Your task to perform on an android device: add a contact in the contacts app Image 0: 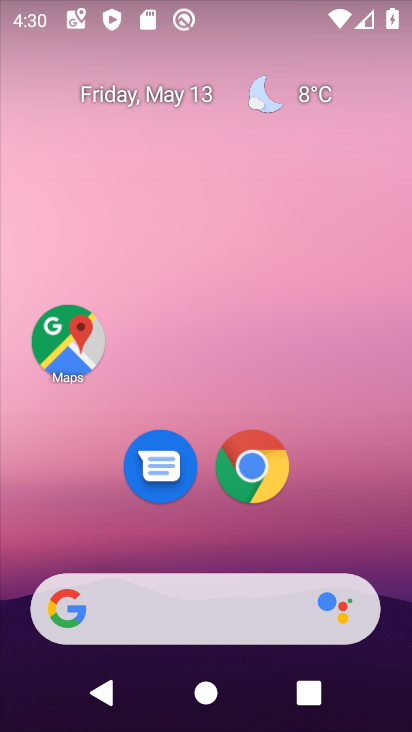
Step 0: drag from (395, 611) to (314, 143)
Your task to perform on an android device: add a contact in the contacts app Image 1: 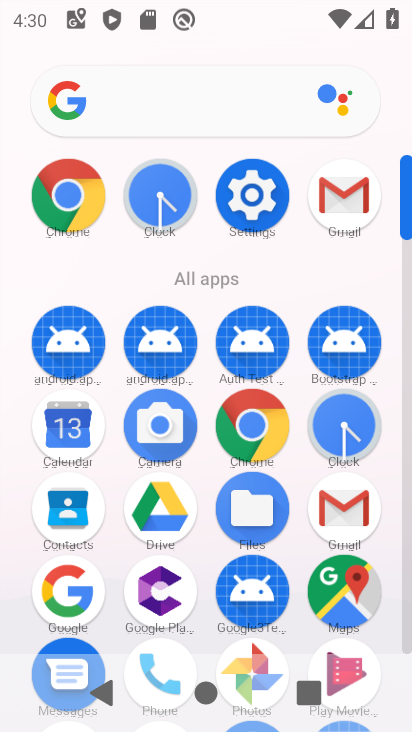
Step 1: click (406, 638)
Your task to perform on an android device: add a contact in the contacts app Image 2: 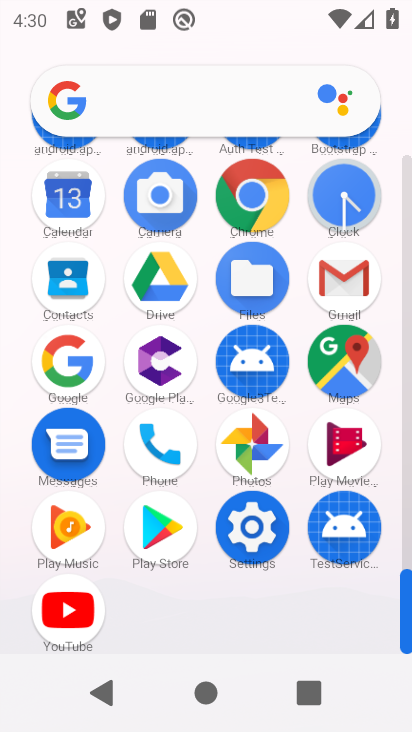
Step 2: click (59, 274)
Your task to perform on an android device: add a contact in the contacts app Image 3: 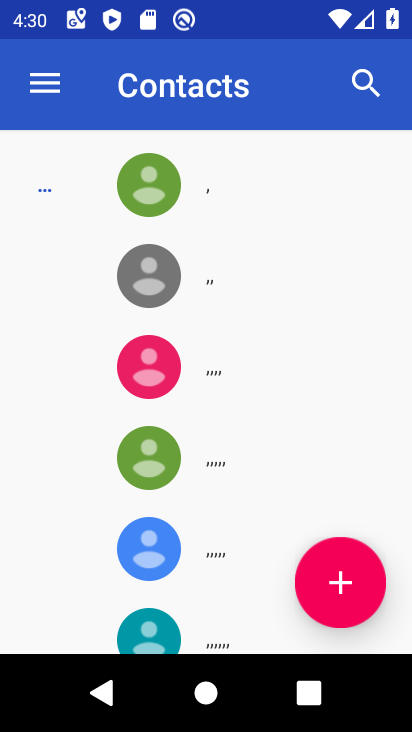
Step 3: click (339, 588)
Your task to perform on an android device: add a contact in the contacts app Image 4: 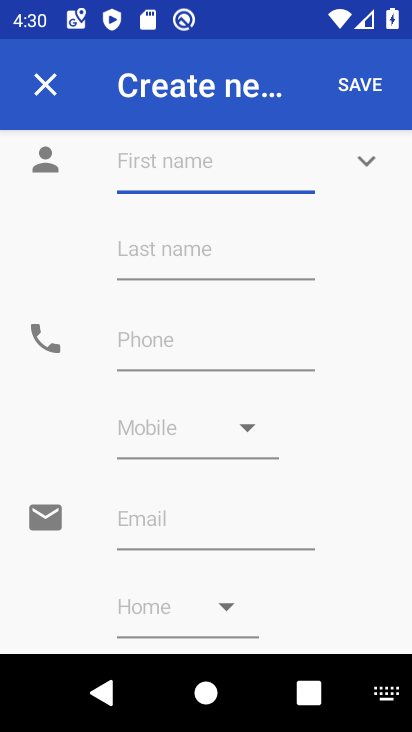
Step 4: type "kjhffsj"
Your task to perform on an android device: add a contact in the contacts app Image 5: 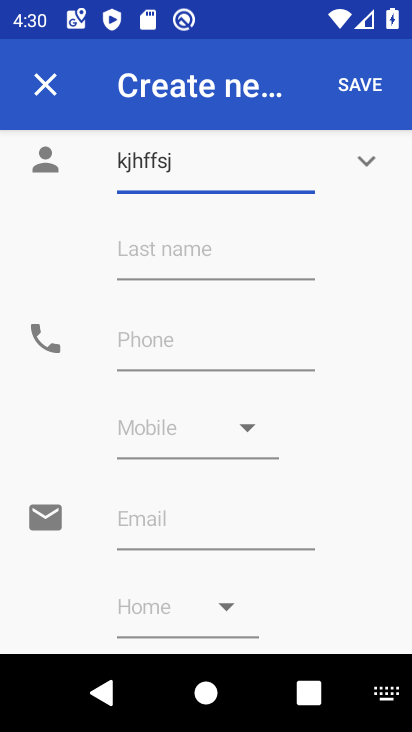
Step 5: click (173, 361)
Your task to perform on an android device: add a contact in the contacts app Image 6: 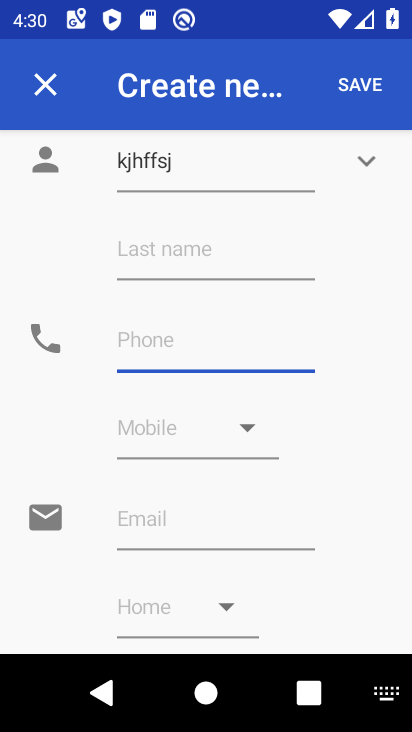
Step 6: type "9876543"
Your task to perform on an android device: add a contact in the contacts app Image 7: 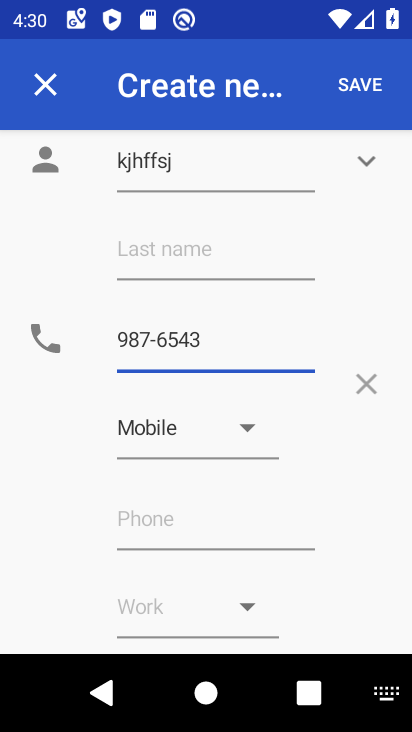
Step 7: click (351, 83)
Your task to perform on an android device: add a contact in the contacts app Image 8: 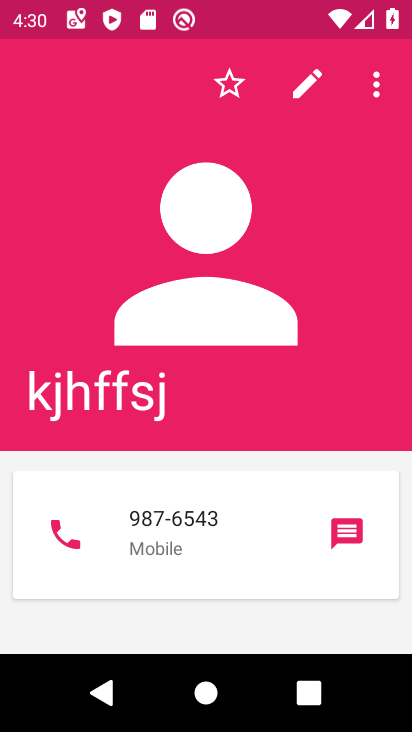
Step 8: task complete